Your task to perform on an android device: set the stopwatch Image 0: 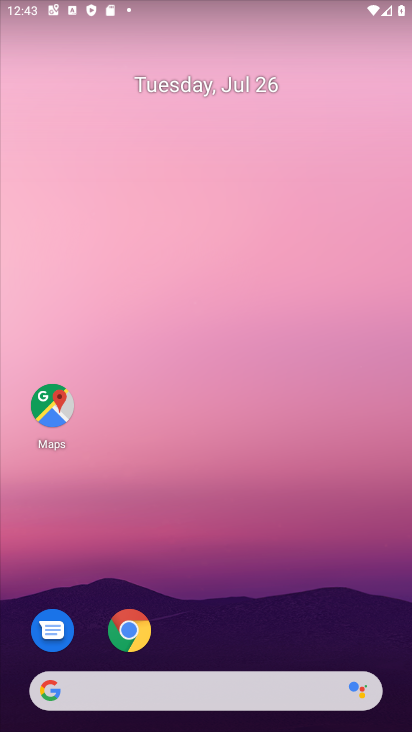
Step 0: drag from (381, 629) to (317, 121)
Your task to perform on an android device: set the stopwatch Image 1: 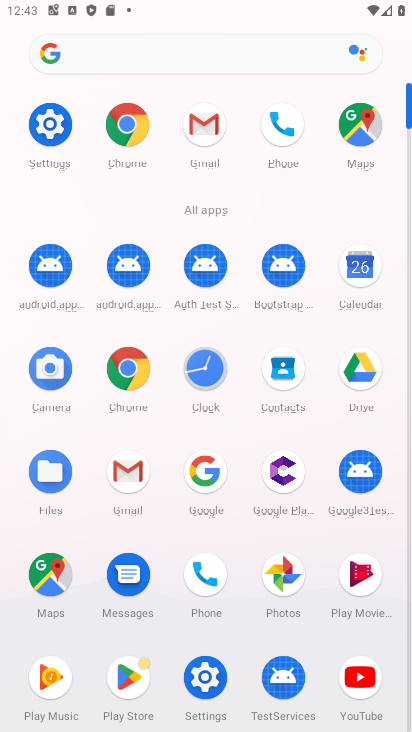
Step 1: click (204, 365)
Your task to perform on an android device: set the stopwatch Image 2: 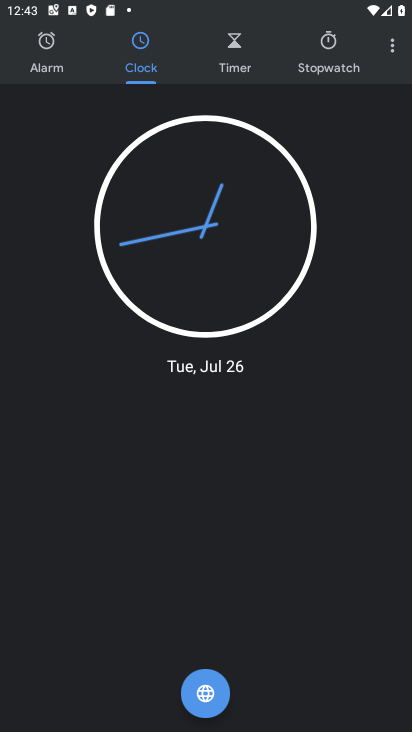
Step 2: click (330, 41)
Your task to perform on an android device: set the stopwatch Image 3: 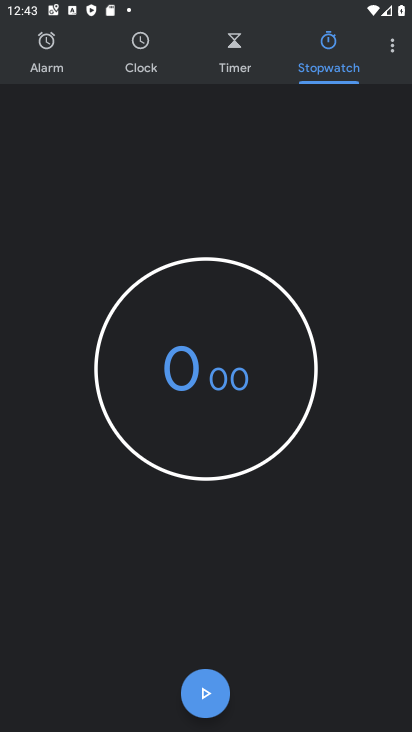
Step 3: task complete